Your task to perform on an android device: Open the stopwatch Image 0: 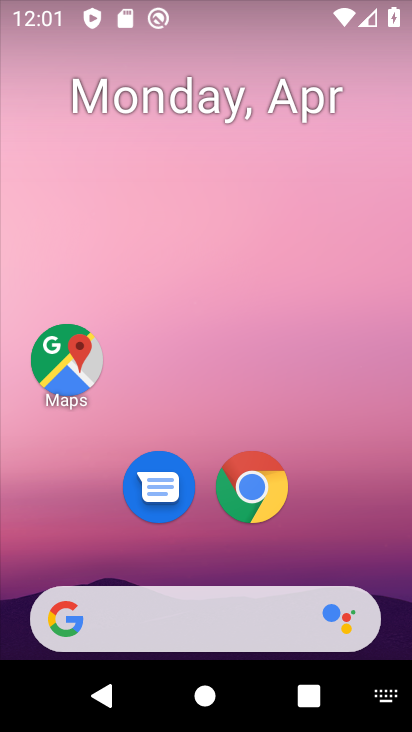
Step 0: drag from (395, 617) to (302, 69)
Your task to perform on an android device: Open the stopwatch Image 1: 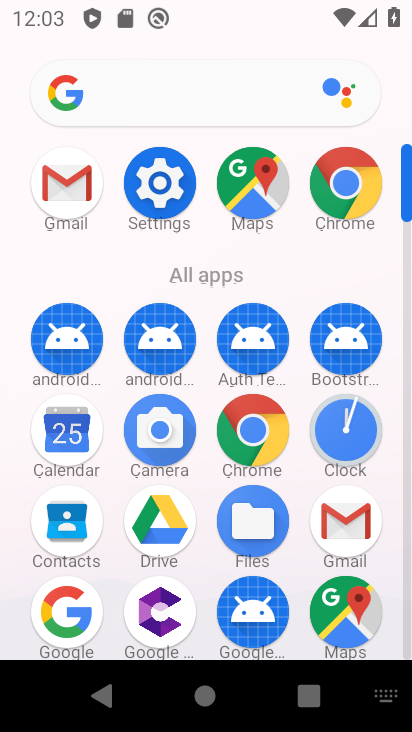
Step 1: click (350, 446)
Your task to perform on an android device: Open the stopwatch Image 2: 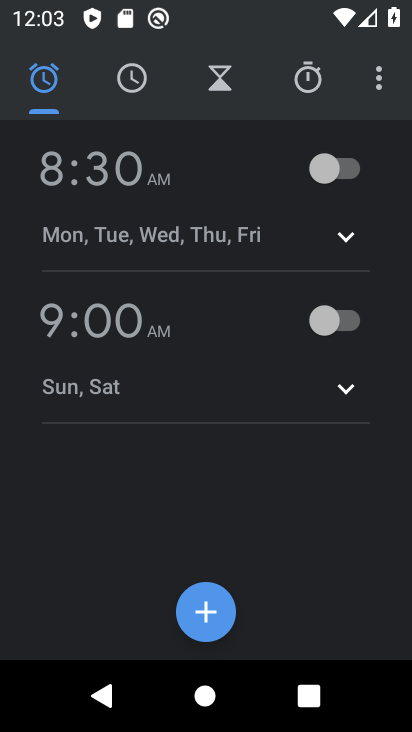
Step 2: click (308, 70)
Your task to perform on an android device: Open the stopwatch Image 3: 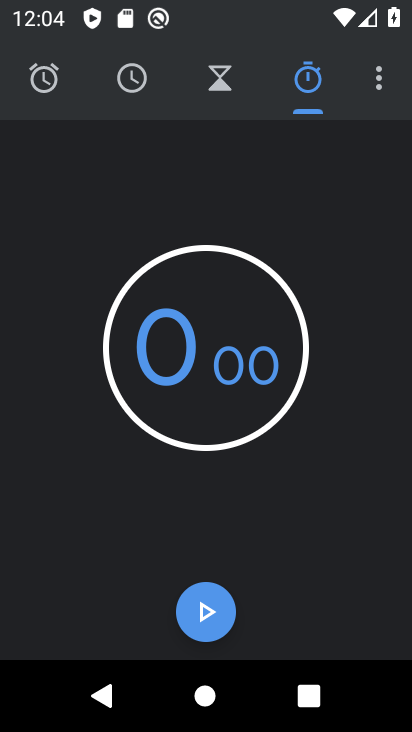
Step 3: task complete